Your task to perform on an android device: Open the calendar app, open the side menu, and click the "Day" option Image 0: 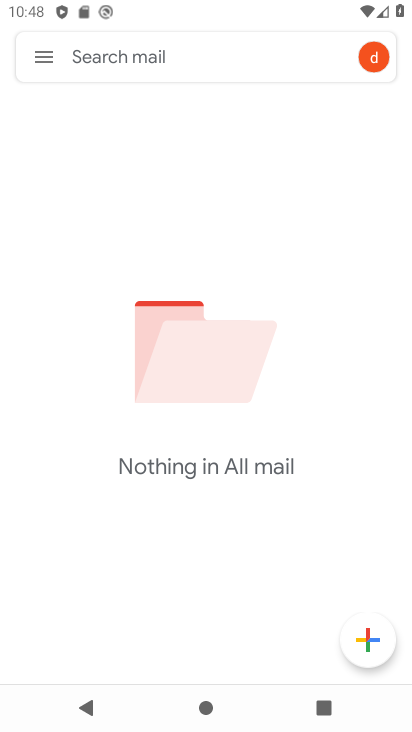
Step 0: press home button
Your task to perform on an android device: Open the calendar app, open the side menu, and click the "Day" option Image 1: 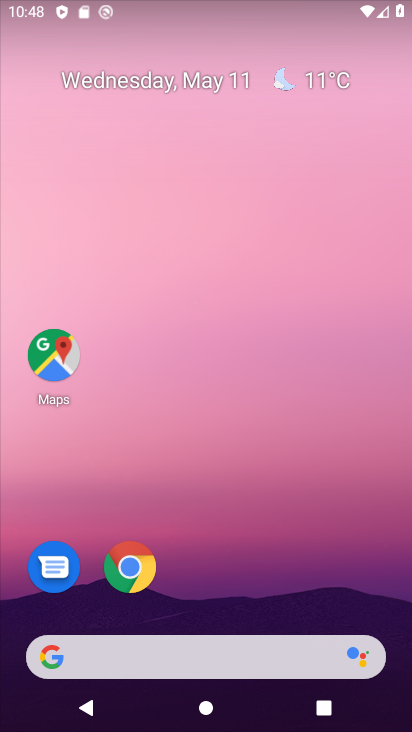
Step 1: drag from (287, 569) to (307, 61)
Your task to perform on an android device: Open the calendar app, open the side menu, and click the "Day" option Image 2: 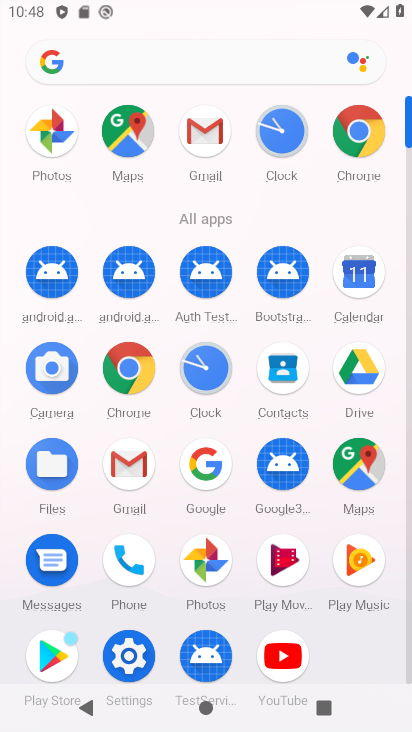
Step 2: click (359, 293)
Your task to perform on an android device: Open the calendar app, open the side menu, and click the "Day" option Image 3: 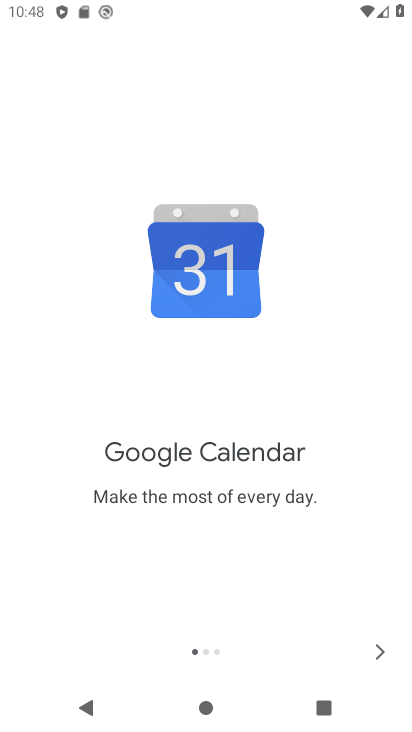
Step 3: click (383, 648)
Your task to perform on an android device: Open the calendar app, open the side menu, and click the "Day" option Image 4: 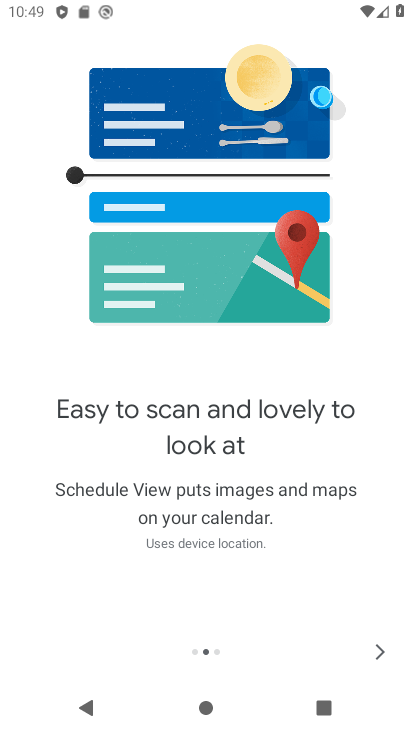
Step 4: click (371, 657)
Your task to perform on an android device: Open the calendar app, open the side menu, and click the "Day" option Image 5: 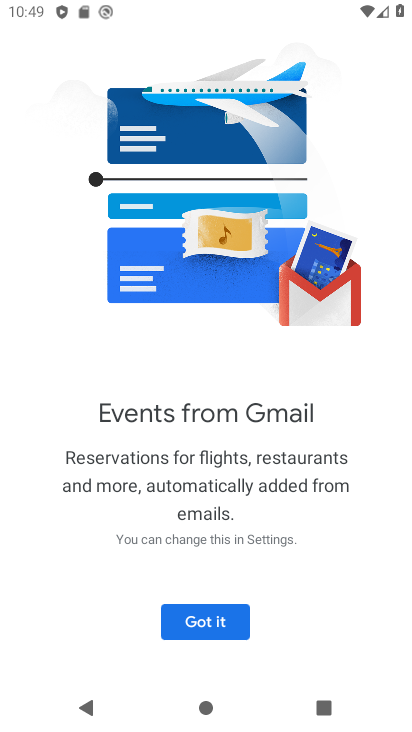
Step 5: click (195, 619)
Your task to perform on an android device: Open the calendar app, open the side menu, and click the "Day" option Image 6: 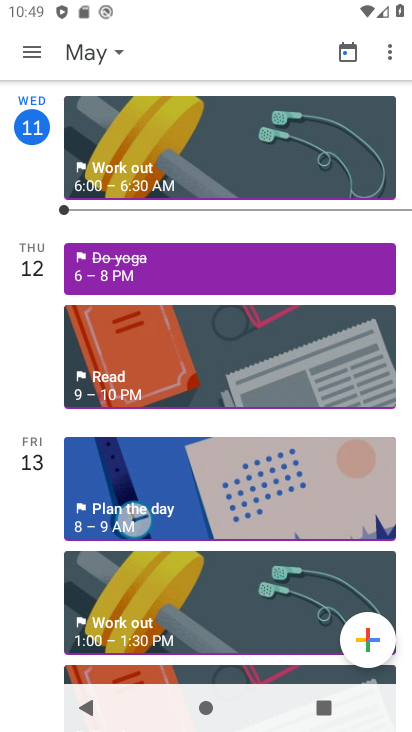
Step 6: click (32, 44)
Your task to perform on an android device: Open the calendar app, open the side menu, and click the "Day" option Image 7: 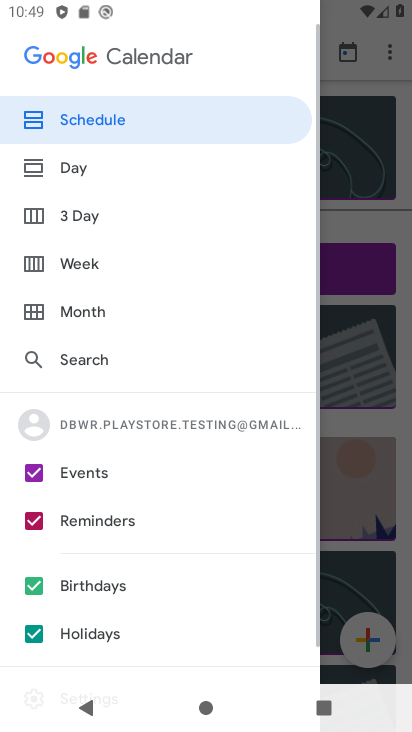
Step 7: click (72, 182)
Your task to perform on an android device: Open the calendar app, open the side menu, and click the "Day" option Image 8: 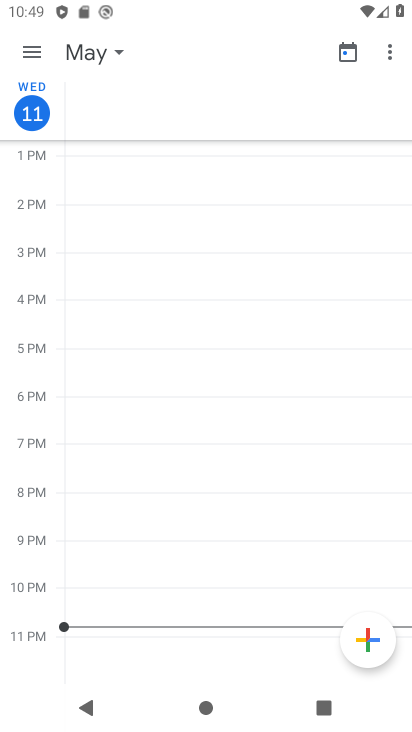
Step 8: task complete